Your task to perform on an android device: Go to internet settings Image 0: 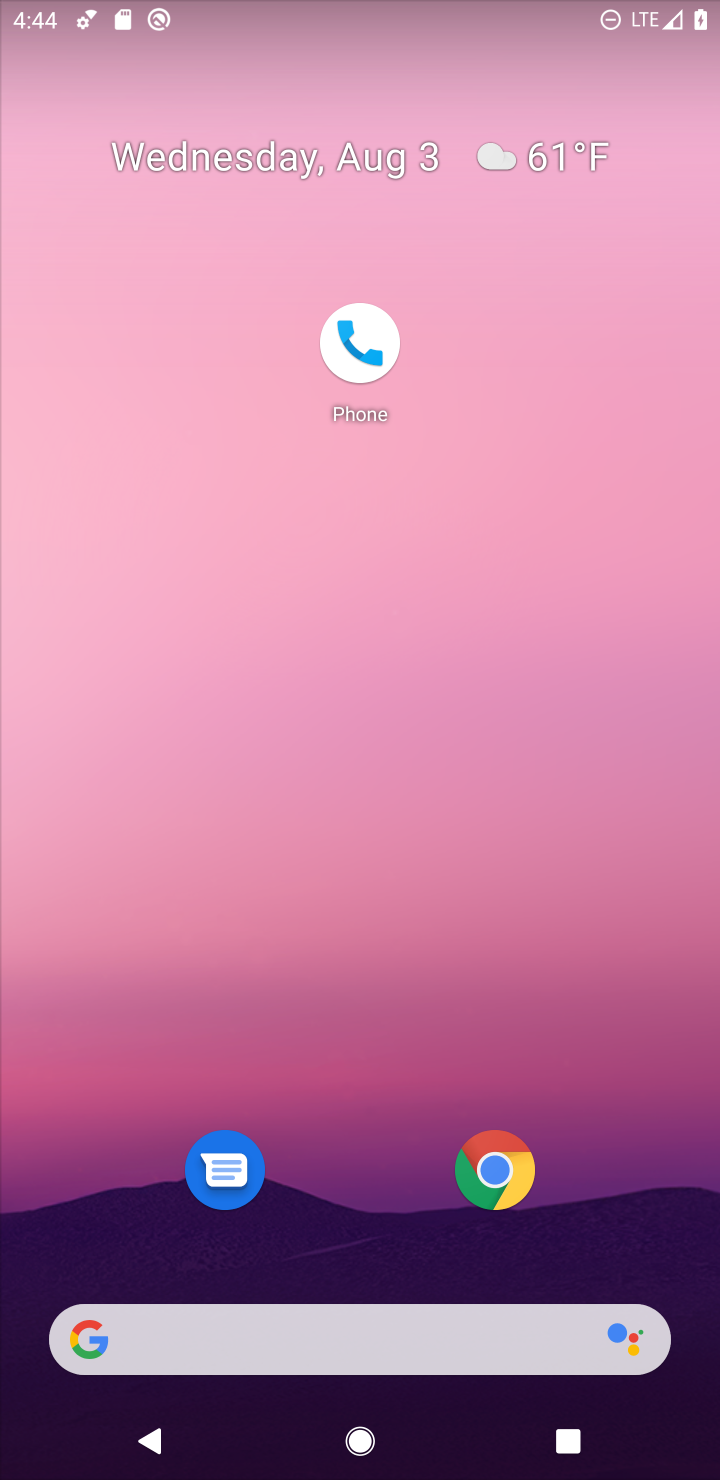
Step 0: press back button
Your task to perform on an android device: Go to internet settings Image 1: 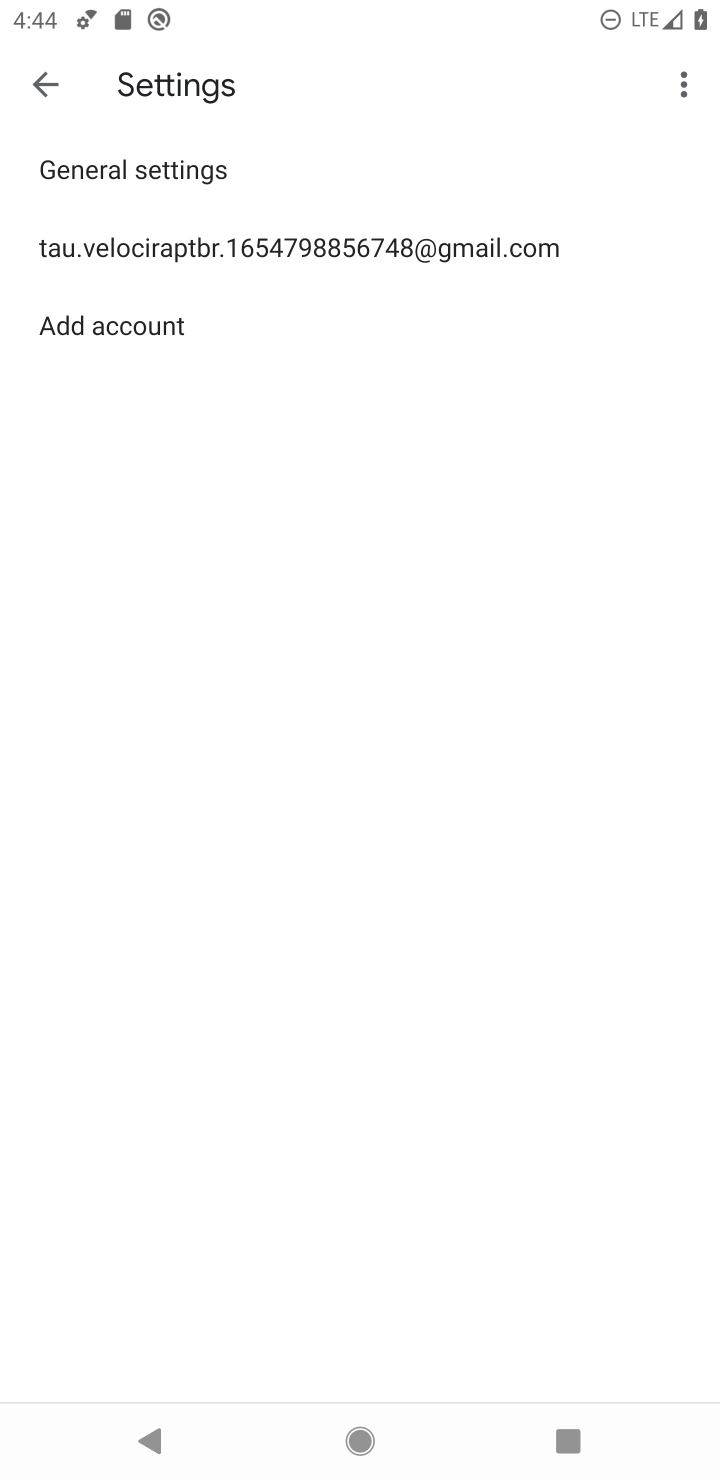
Step 1: press back button
Your task to perform on an android device: Go to internet settings Image 2: 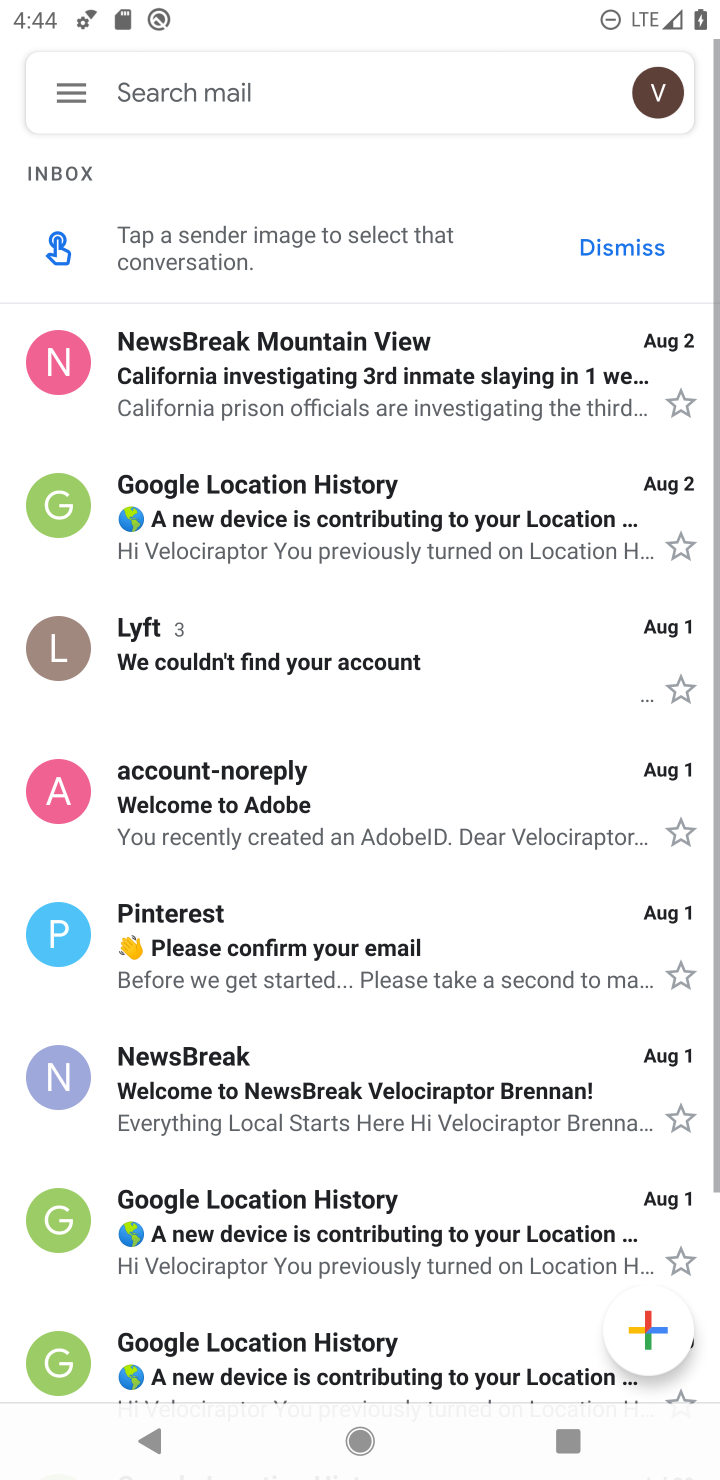
Step 2: press back button
Your task to perform on an android device: Go to internet settings Image 3: 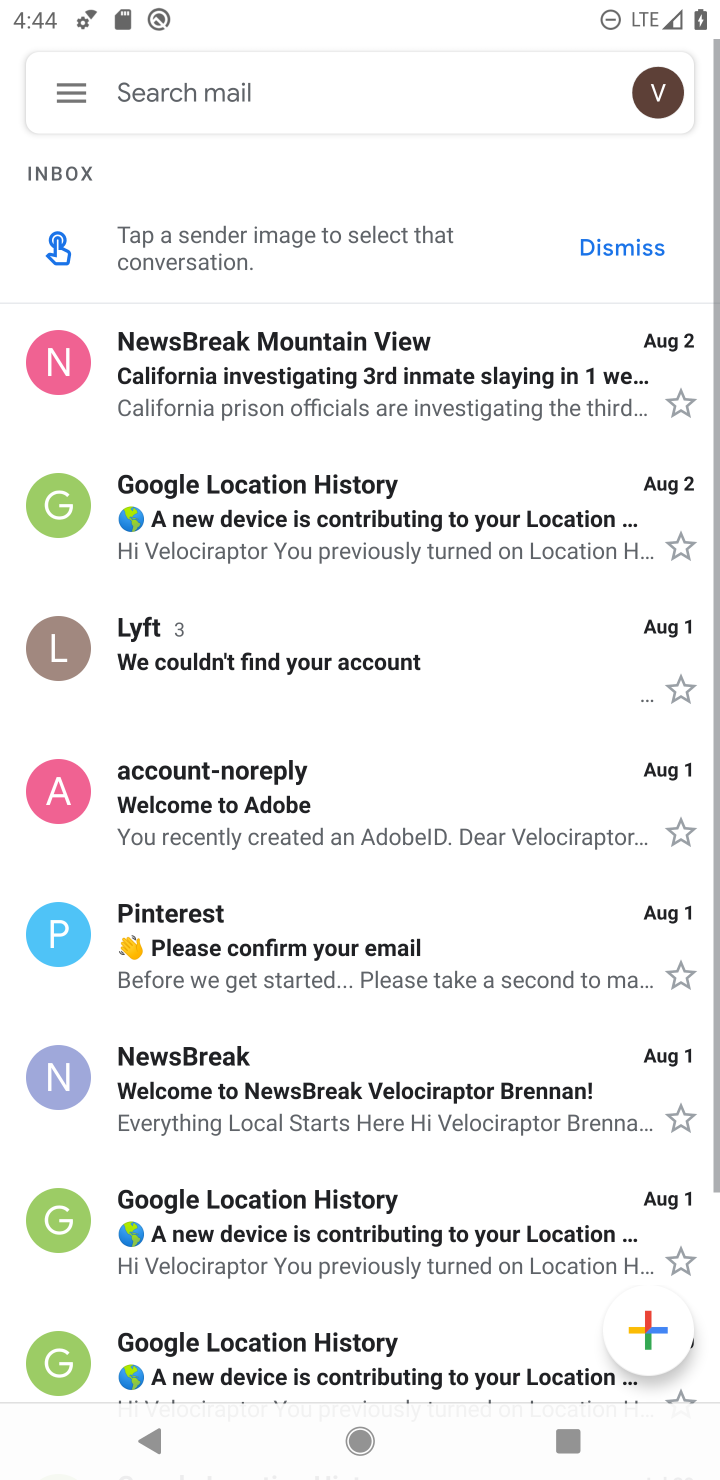
Step 3: press back button
Your task to perform on an android device: Go to internet settings Image 4: 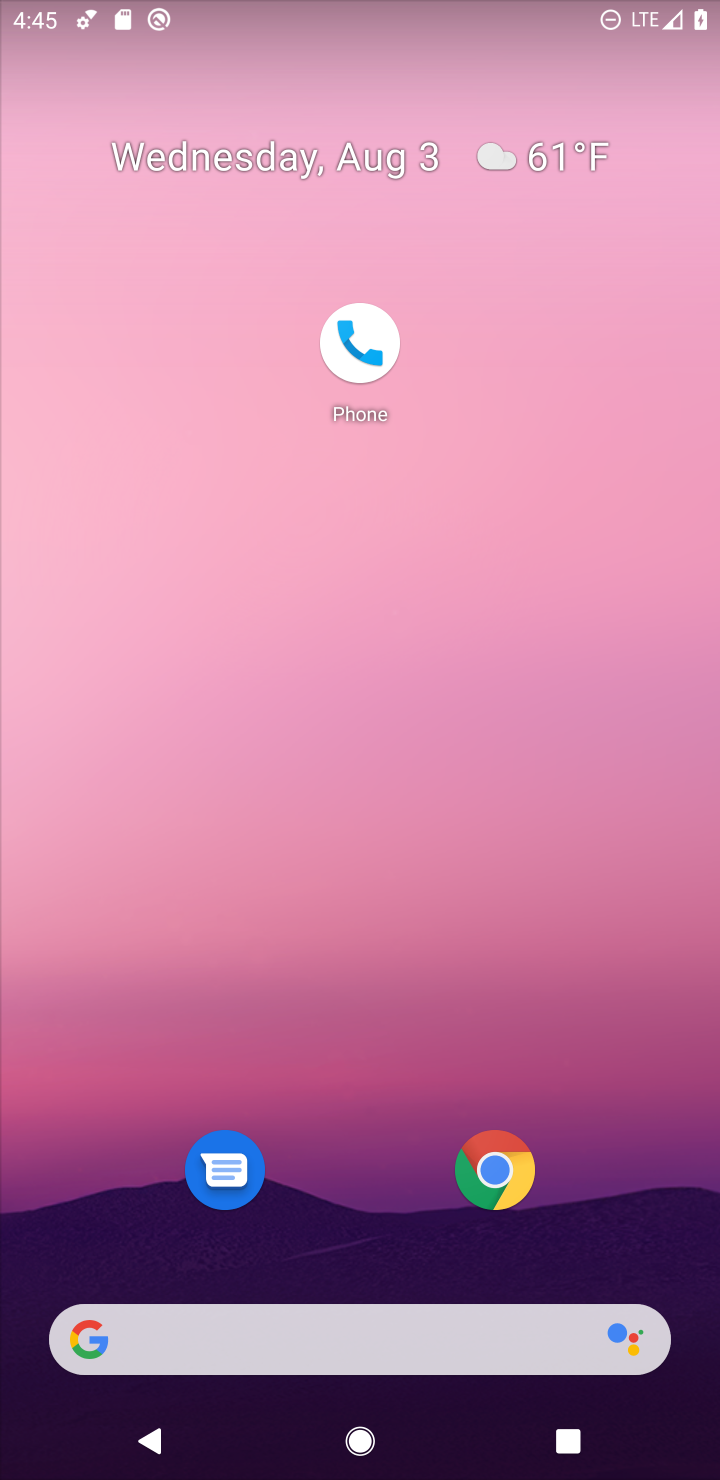
Step 4: press back button
Your task to perform on an android device: Go to internet settings Image 5: 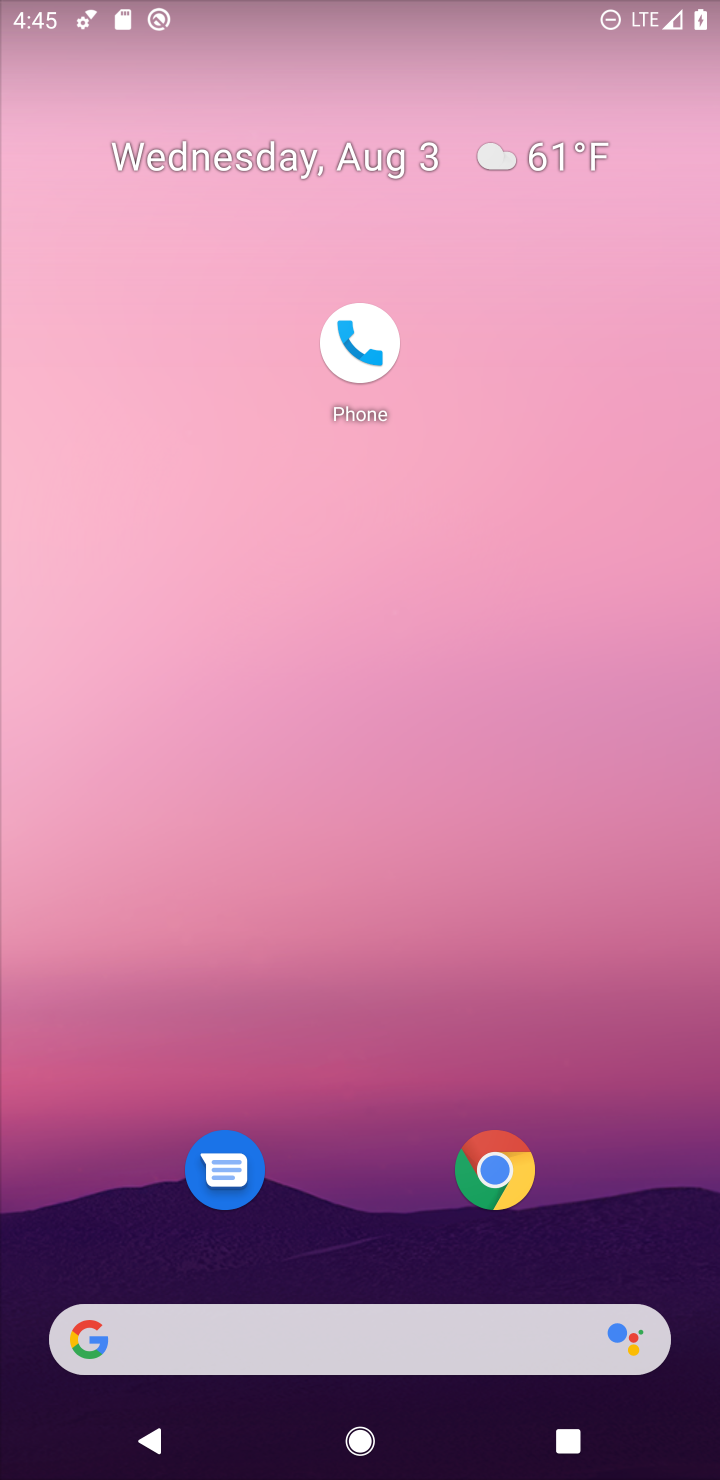
Step 5: drag from (366, 1263) to (428, 298)
Your task to perform on an android device: Go to internet settings Image 6: 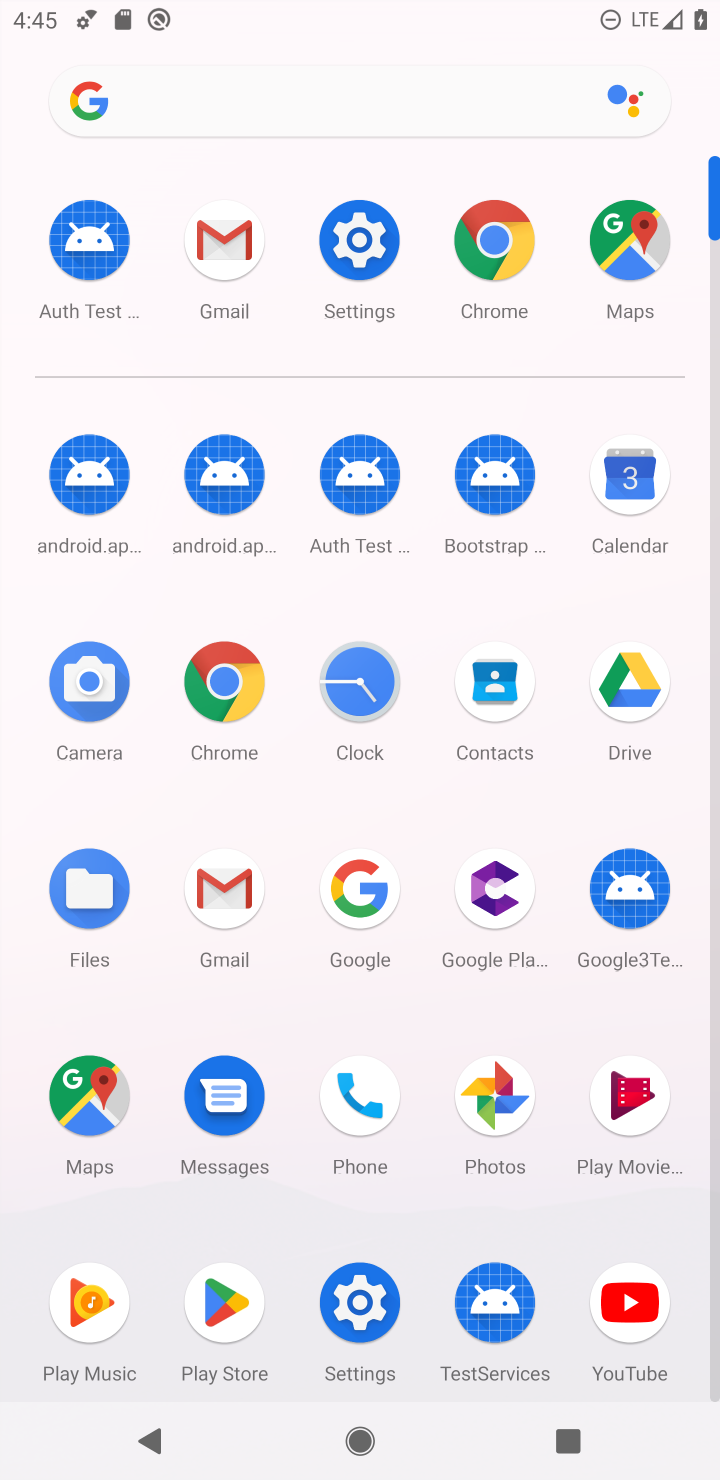
Step 6: click (350, 234)
Your task to perform on an android device: Go to internet settings Image 7: 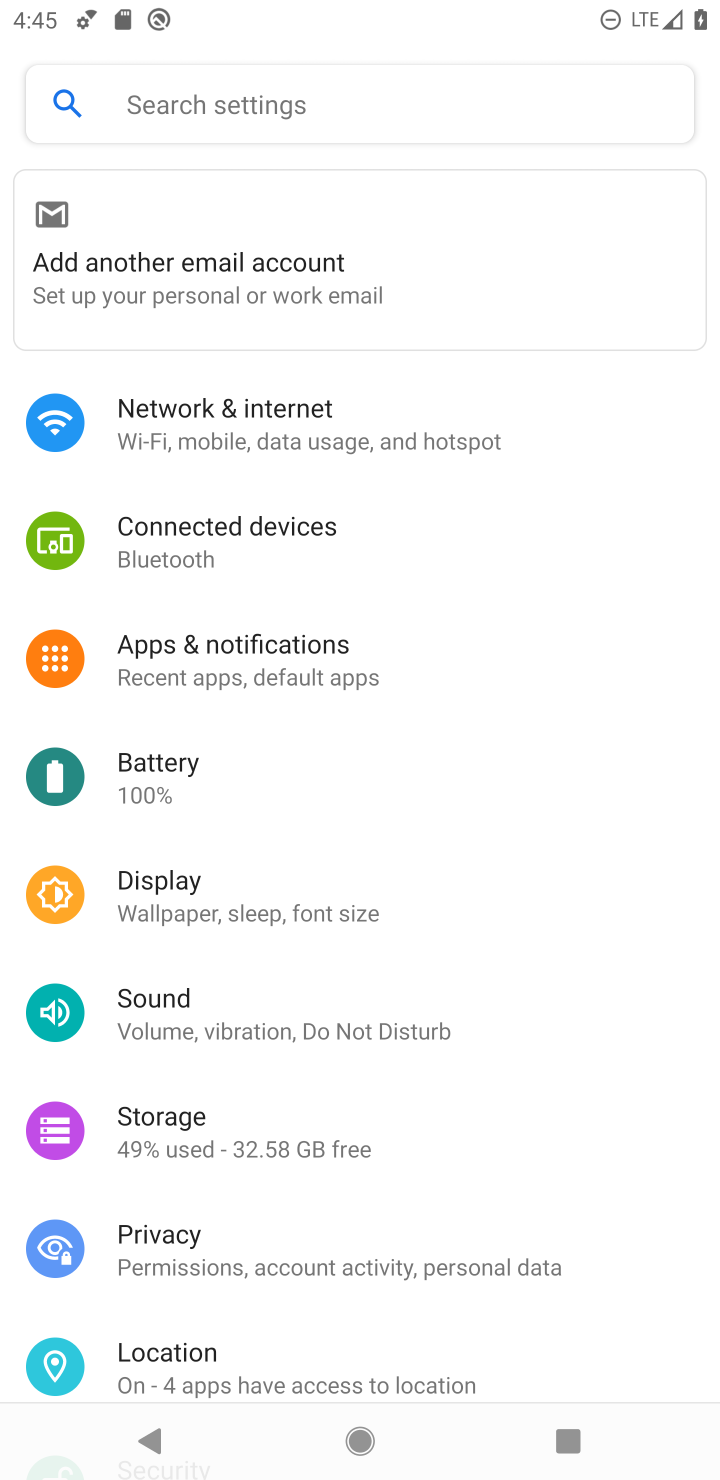
Step 7: click (392, 426)
Your task to perform on an android device: Go to internet settings Image 8: 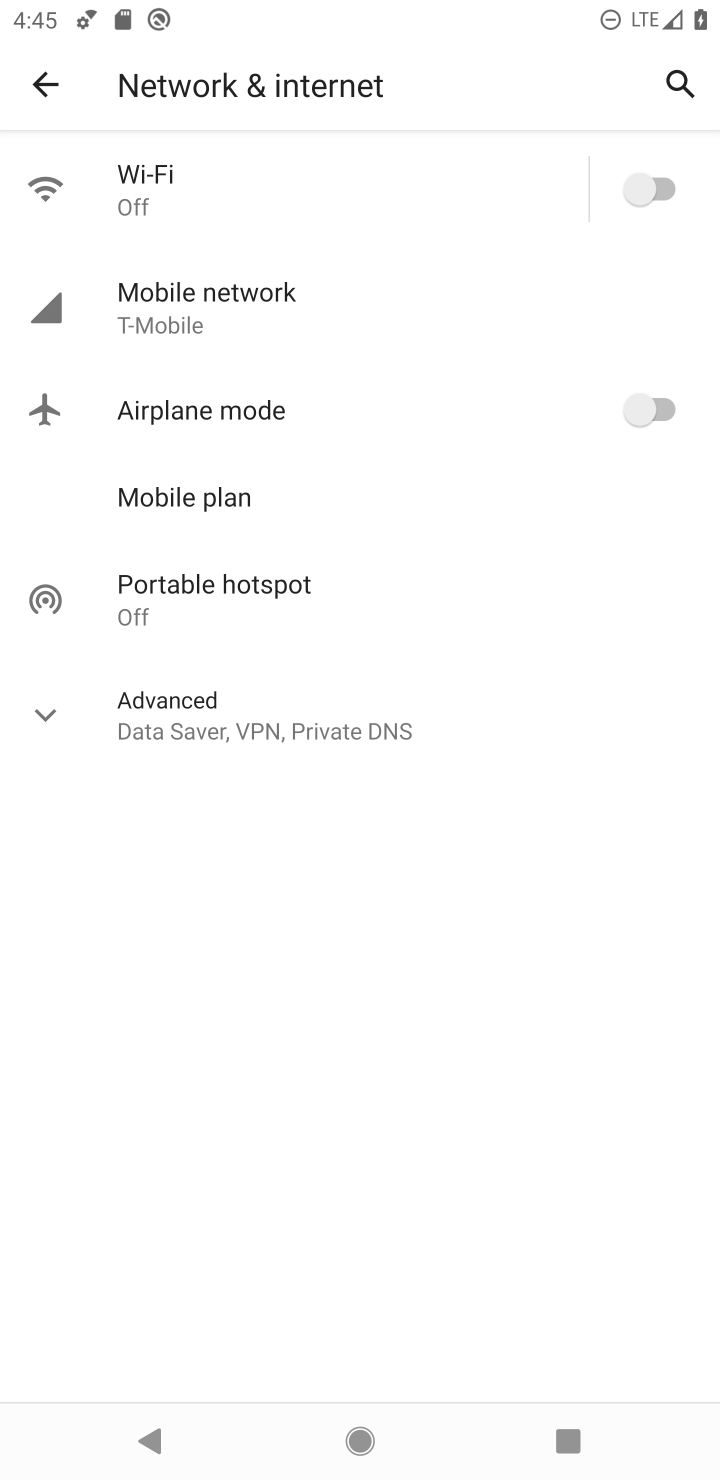
Step 8: task complete